Your task to perform on an android device: Search for usb-b on ebay.com, select the first entry, add it to the cart, then select checkout. Image 0: 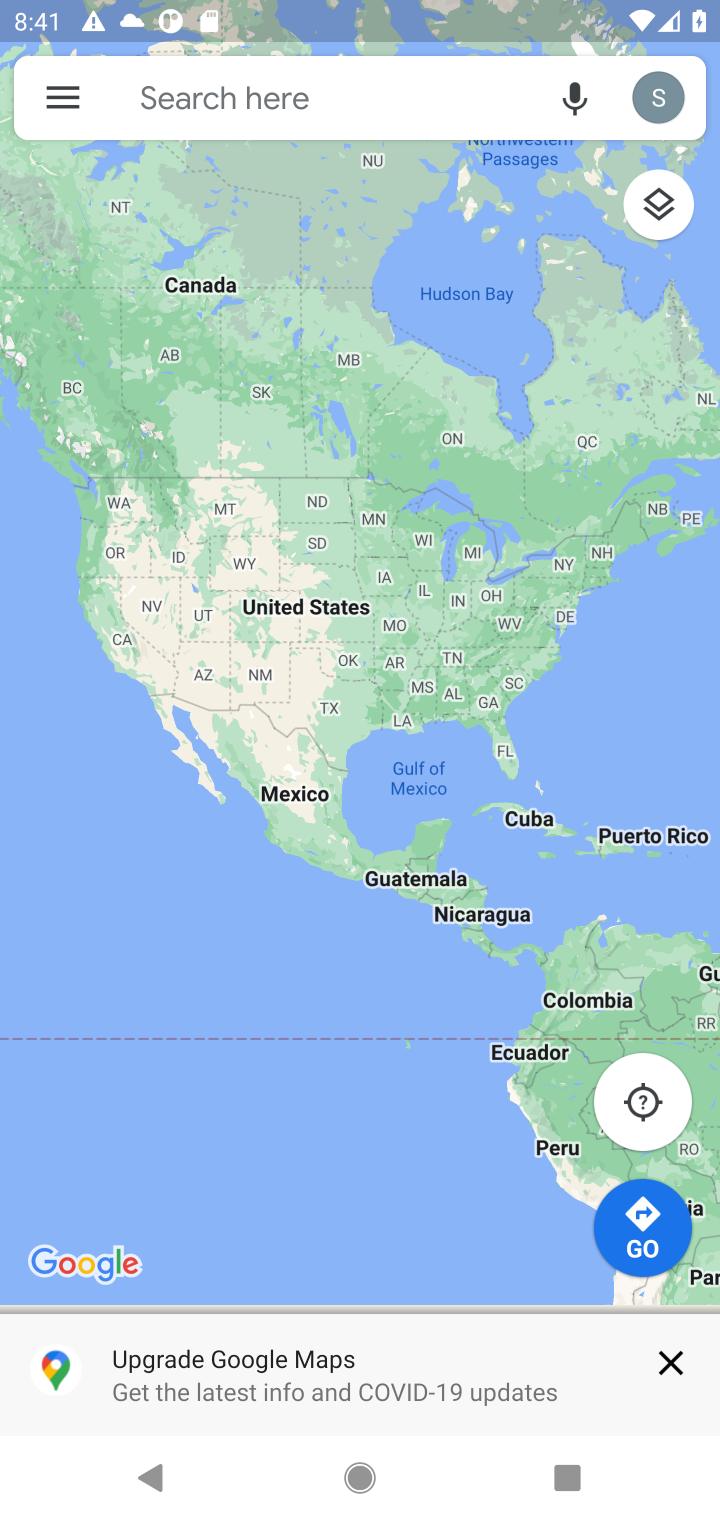
Step 0: press home button
Your task to perform on an android device: Search for usb-b on ebay.com, select the first entry, add it to the cart, then select checkout. Image 1: 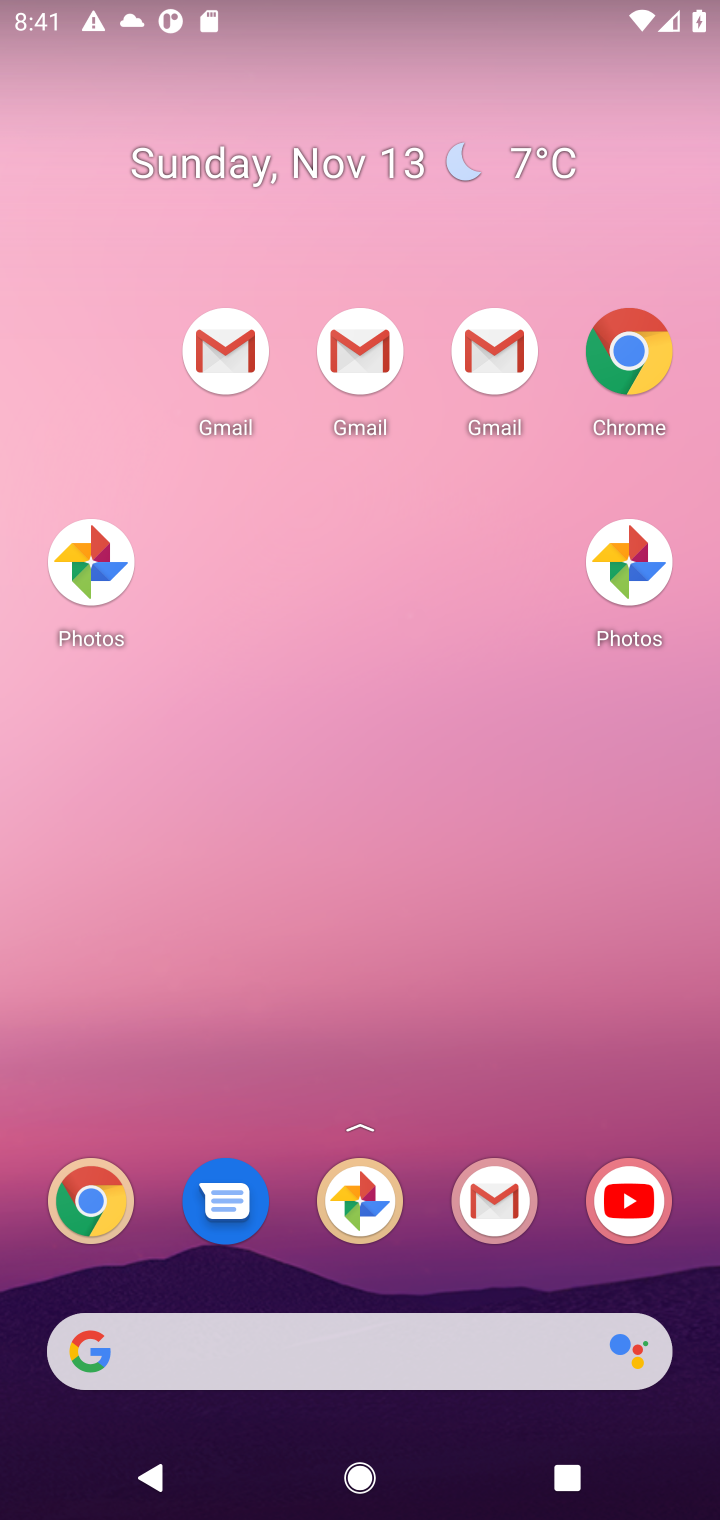
Step 1: drag from (428, 1268) to (346, 236)
Your task to perform on an android device: Search for usb-b on ebay.com, select the first entry, add it to the cart, then select checkout. Image 2: 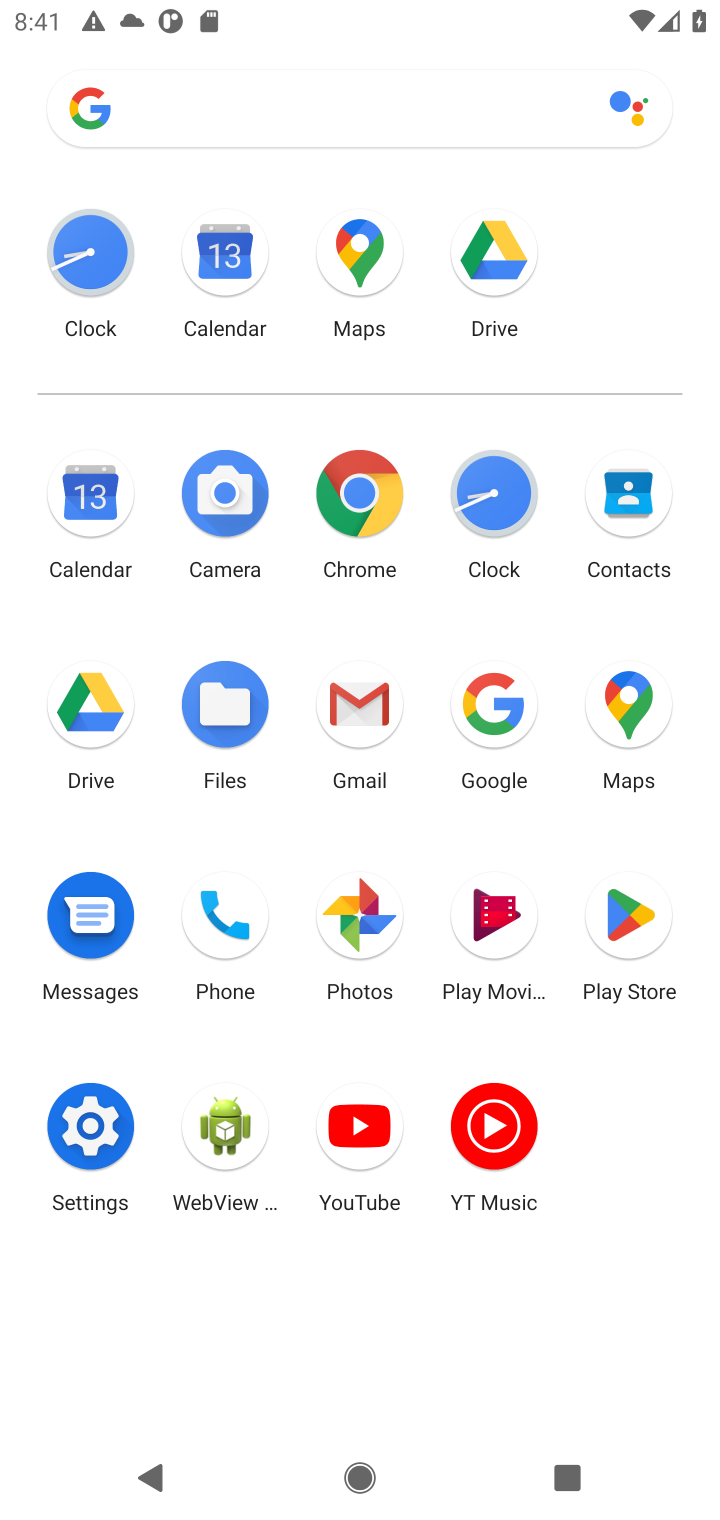
Step 2: click (369, 498)
Your task to perform on an android device: Search for usb-b on ebay.com, select the first entry, add it to the cart, then select checkout. Image 3: 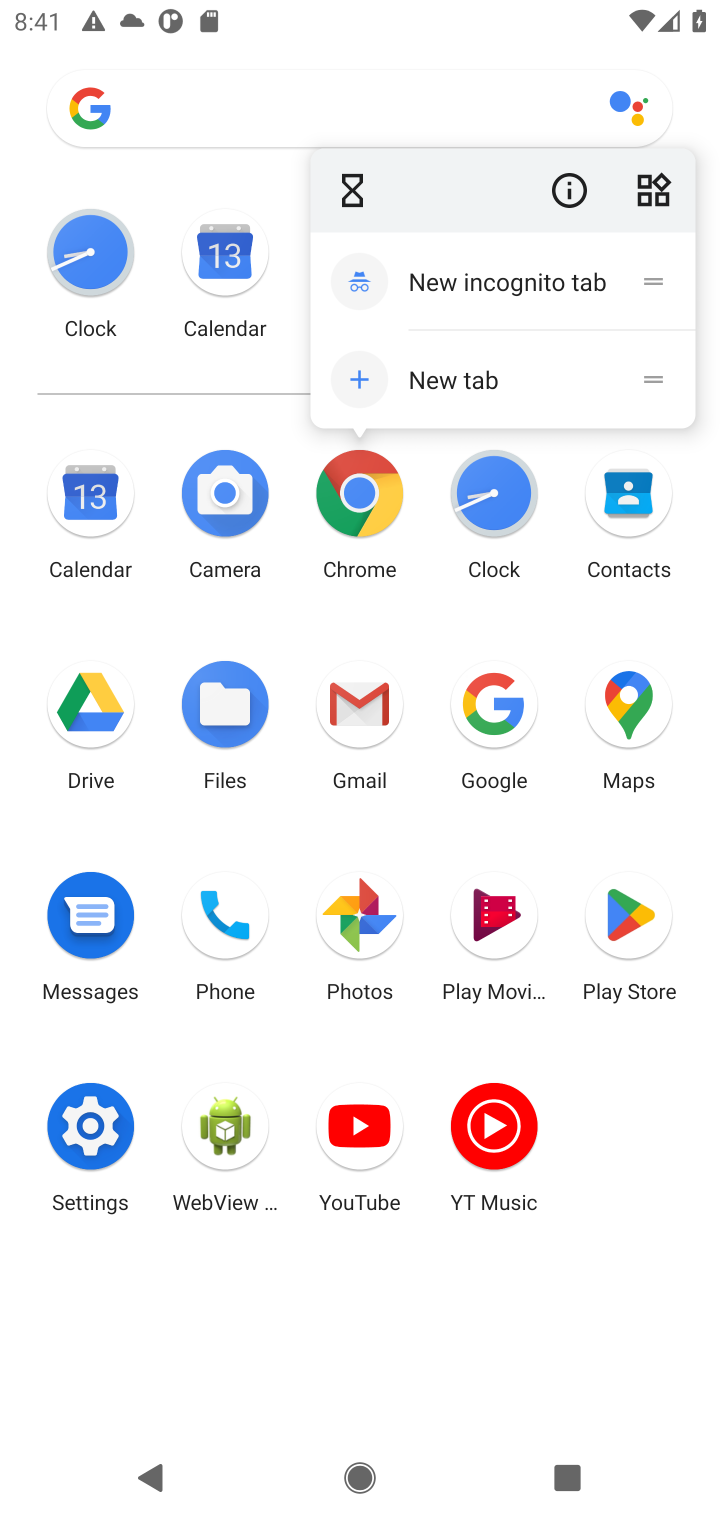
Step 3: click (364, 493)
Your task to perform on an android device: Search for usb-b on ebay.com, select the first entry, add it to the cart, then select checkout. Image 4: 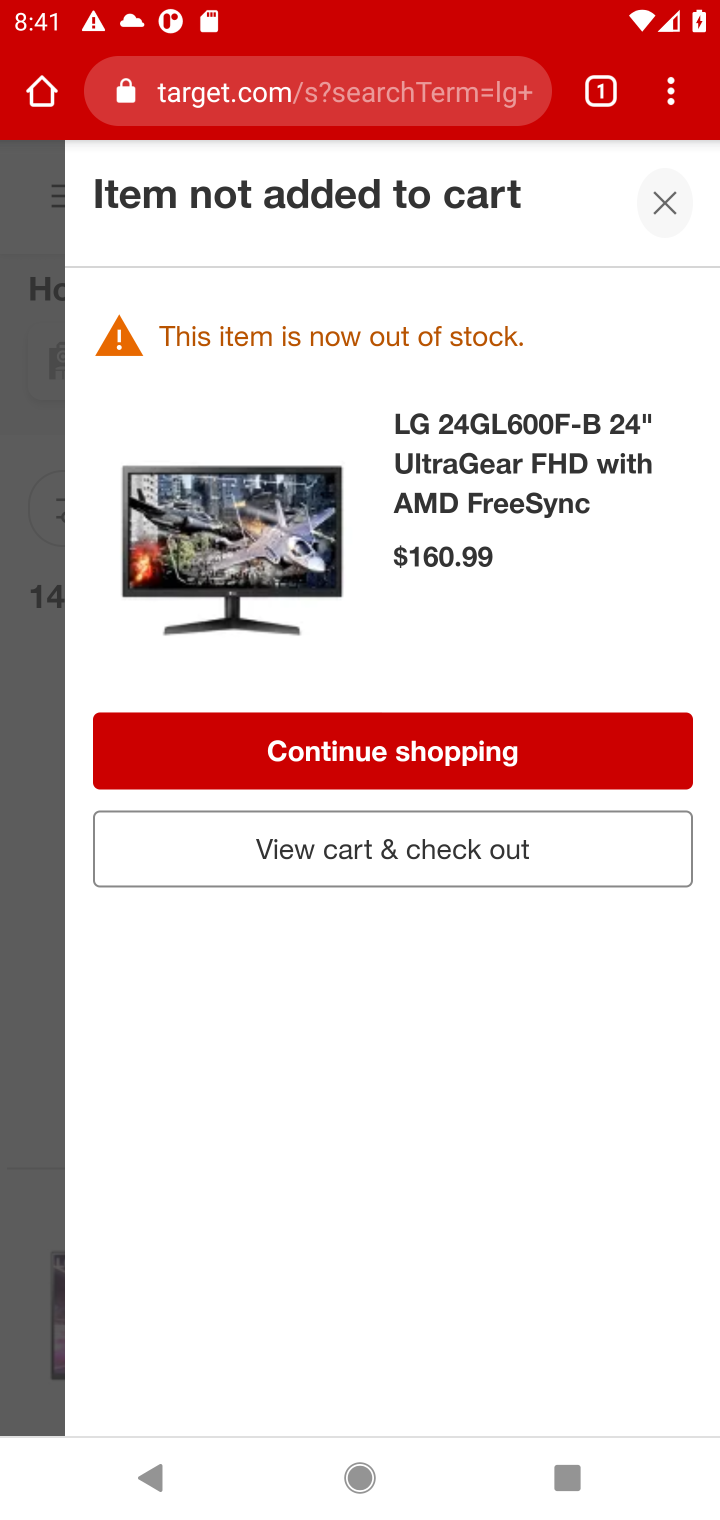
Step 4: click (333, 86)
Your task to perform on an android device: Search for usb-b on ebay.com, select the first entry, add it to the cart, then select checkout. Image 5: 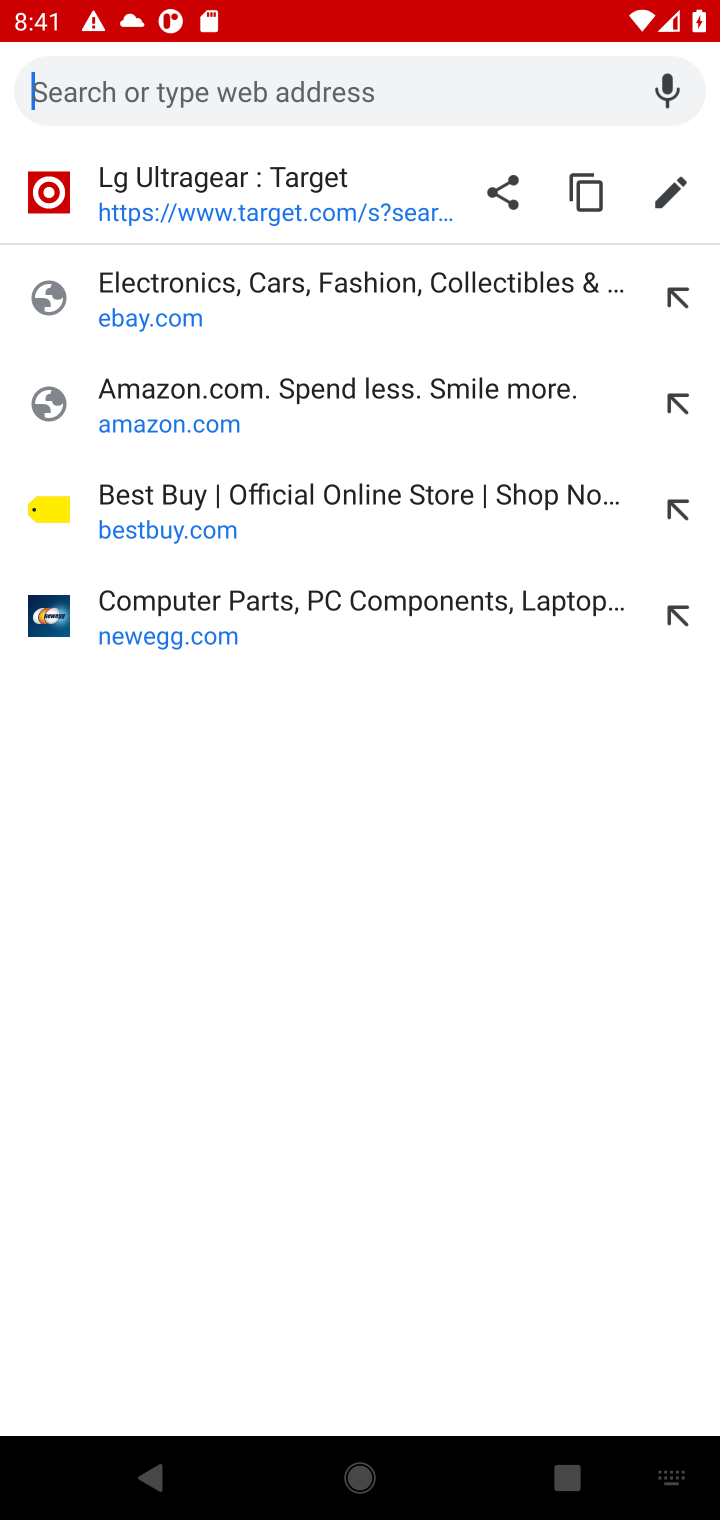
Step 5: type "ebay.com"
Your task to perform on an android device: Search for usb-b on ebay.com, select the first entry, add it to the cart, then select checkout. Image 6: 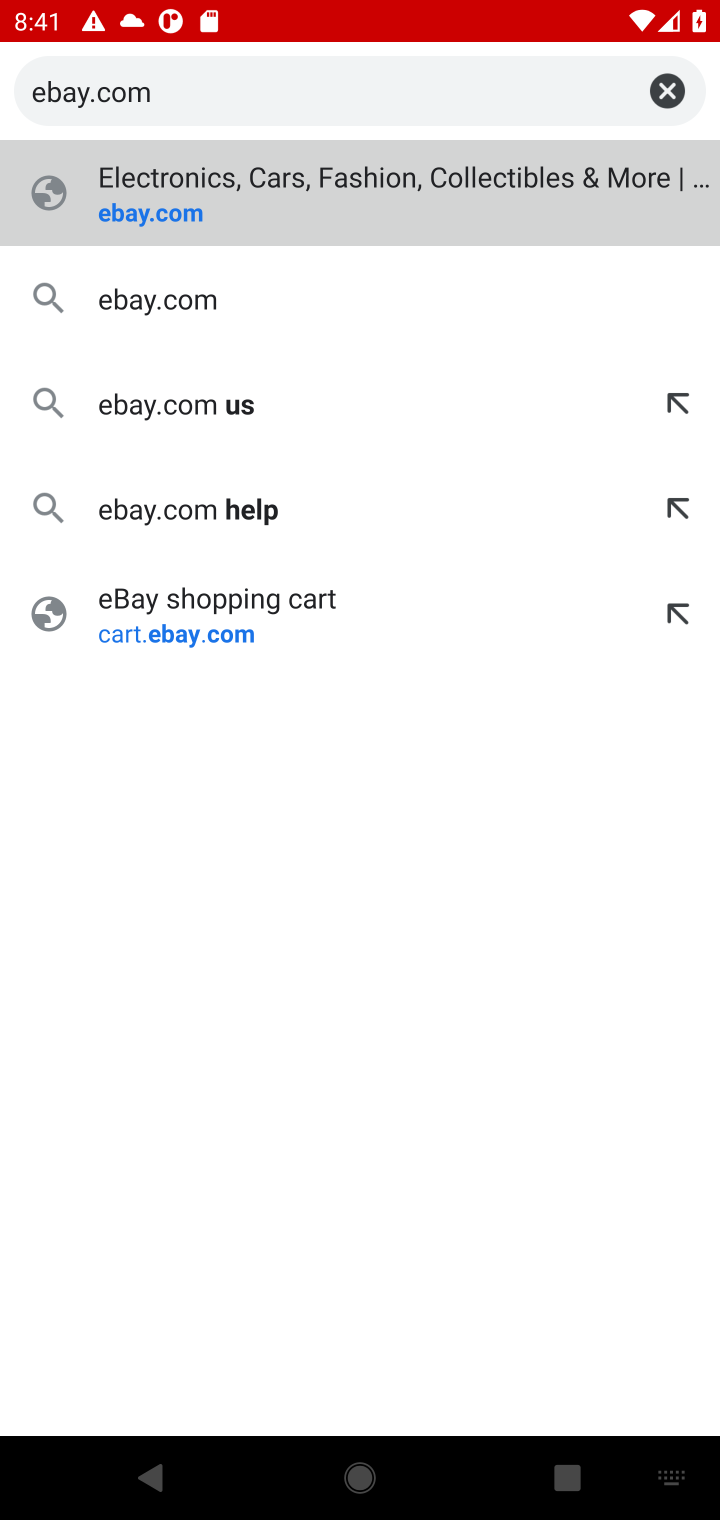
Step 6: press enter
Your task to perform on an android device: Search for usb-b on ebay.com, select the first entry, add it to the cart, then select checkout. Image 7: 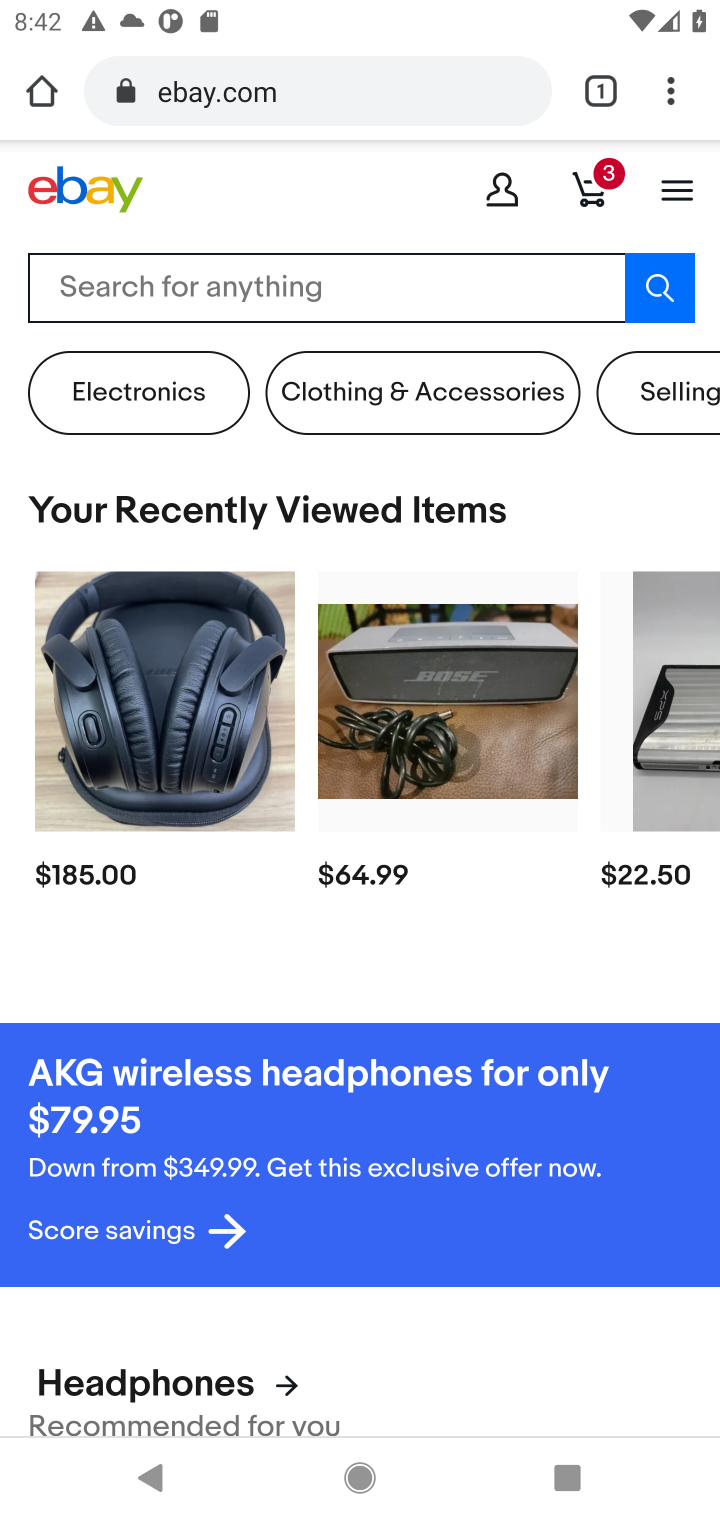
Step 7: click (475, 284)
Your task to perform on an android device: Search for usb-b on ebay.com, select the first entry, add it to the cart, then select checkout. Image 8: 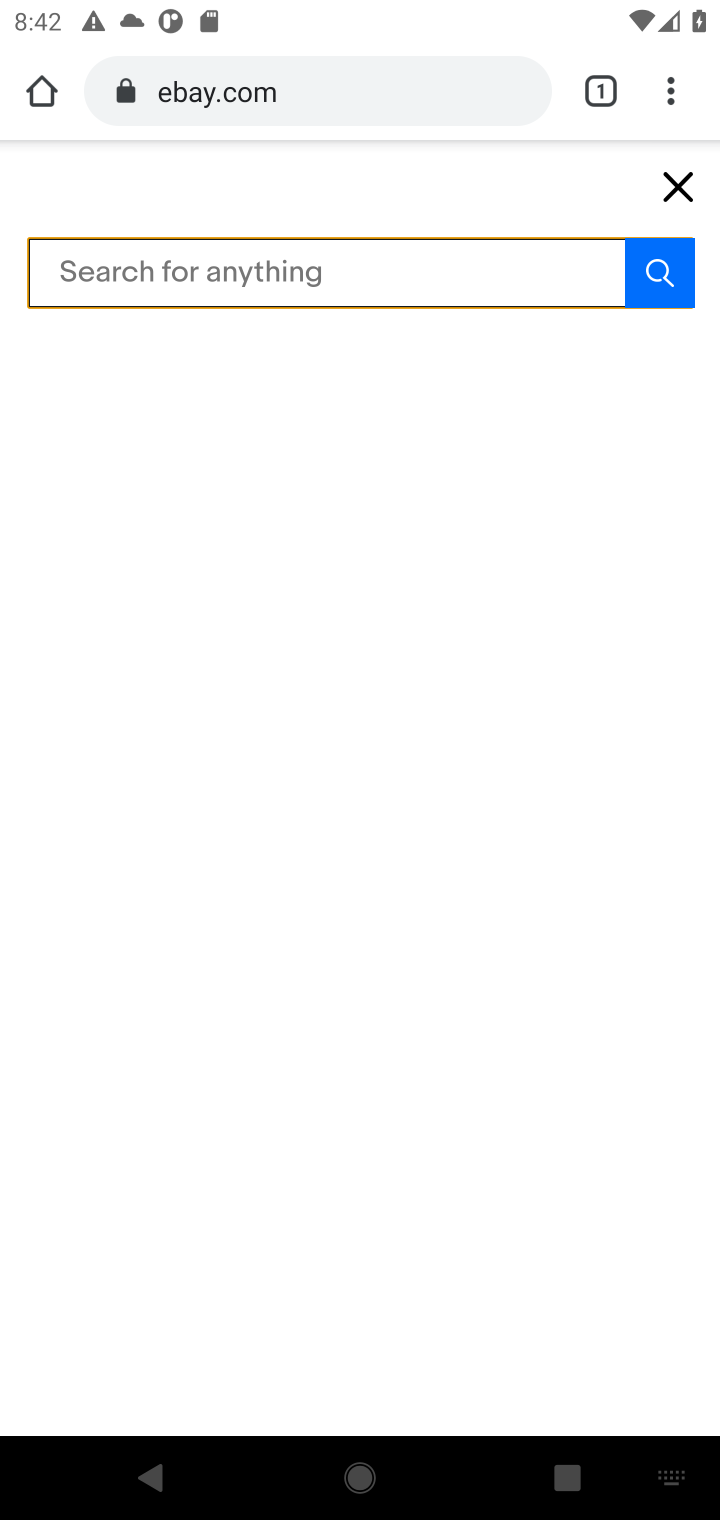
Step 8: type "usb-b"
Your task to perform on an android device: Search for usb-b on ebay.com, select the first entry, add it to the cart, then select checkout. Image 9: 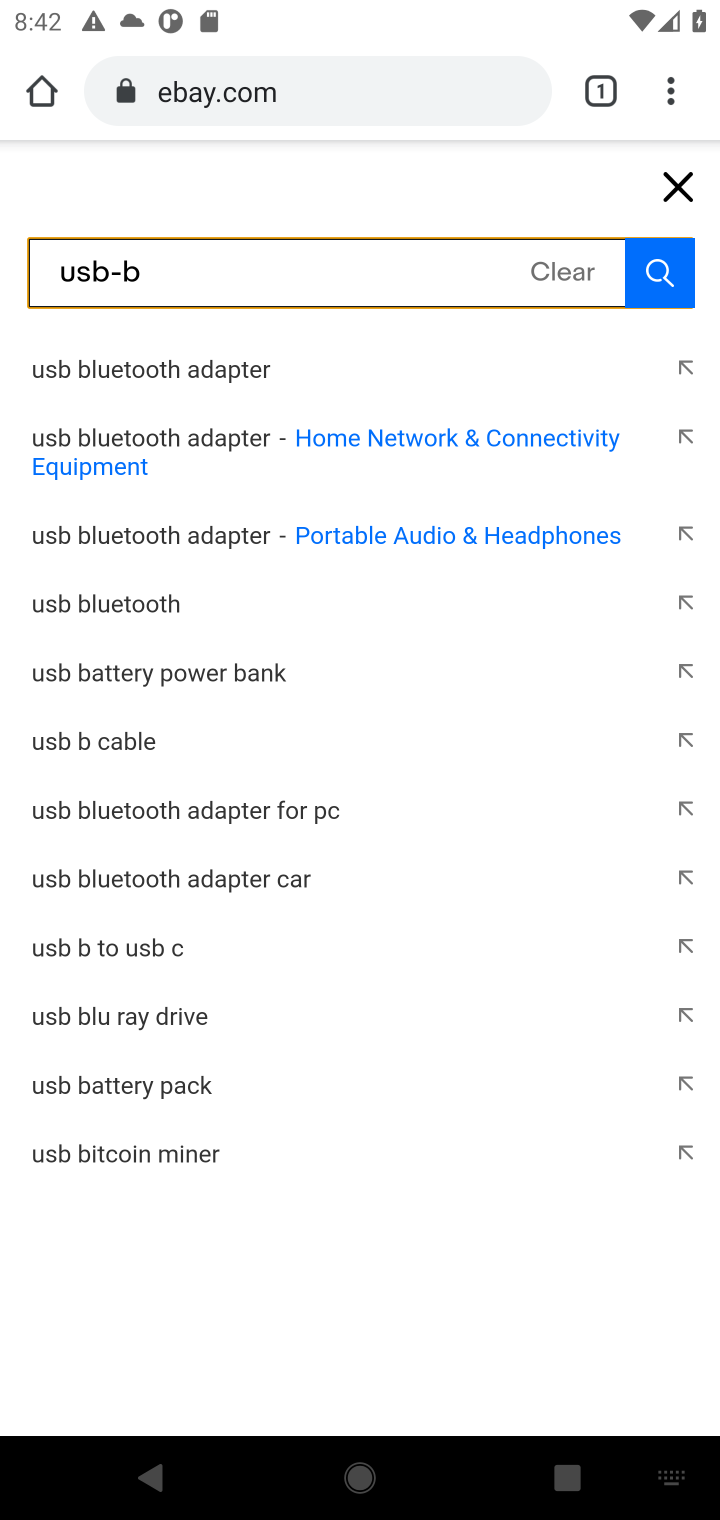
Step 9: press enter
Your task to perform on an android device: Search for usb-b on ebay.com, select the first entry, add it to the cart, then select checkout. Image 10: 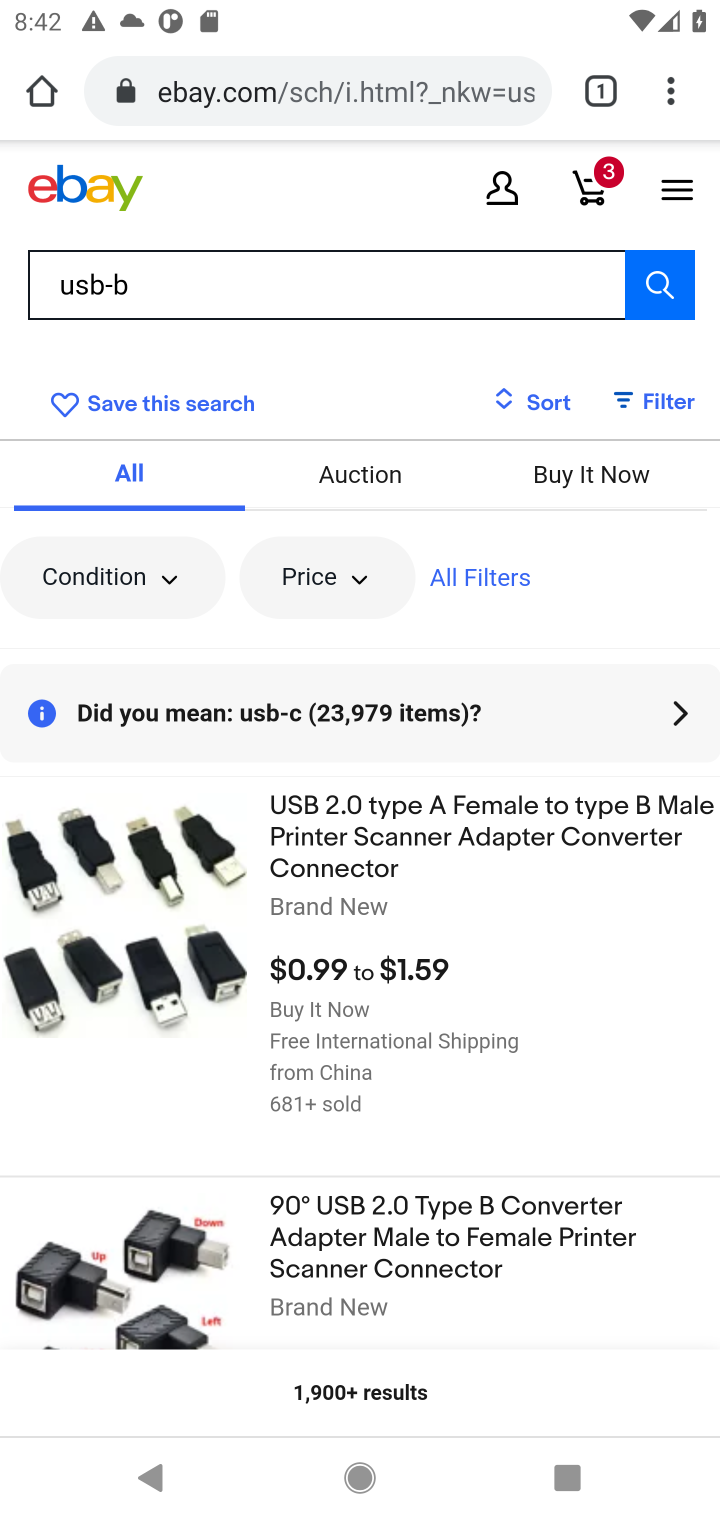
Step 10: drag from (487, 1070) to (477, 822)
Your task to perform on an android device: Search for usb-b on ebay.com, select the first entry, add it to the cart, then select checkout. Image 11: 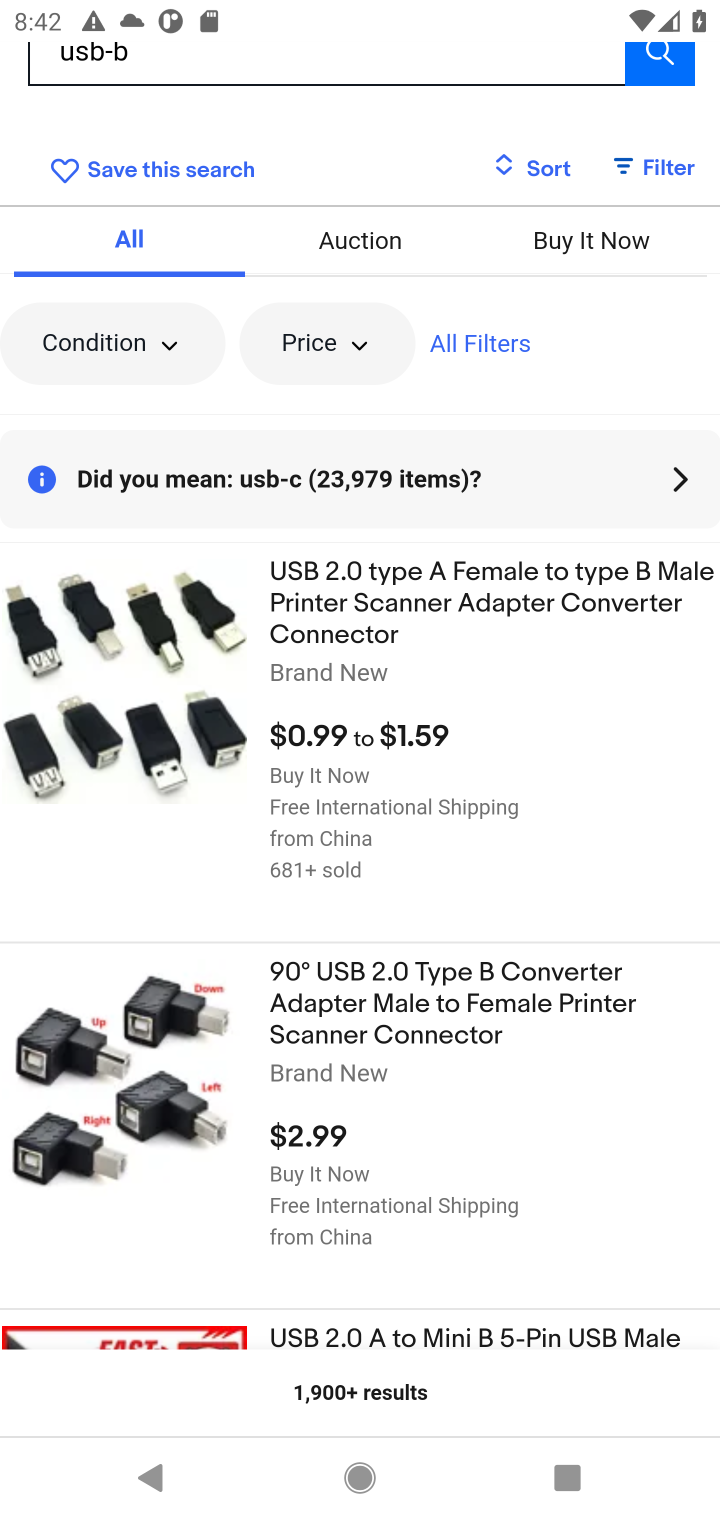
Step 11: click (373, 587)
Your task to perform on an android device: Search for usb-b on ebay.com, select the first entry, add it to the cart, then select checkout. Image 12: 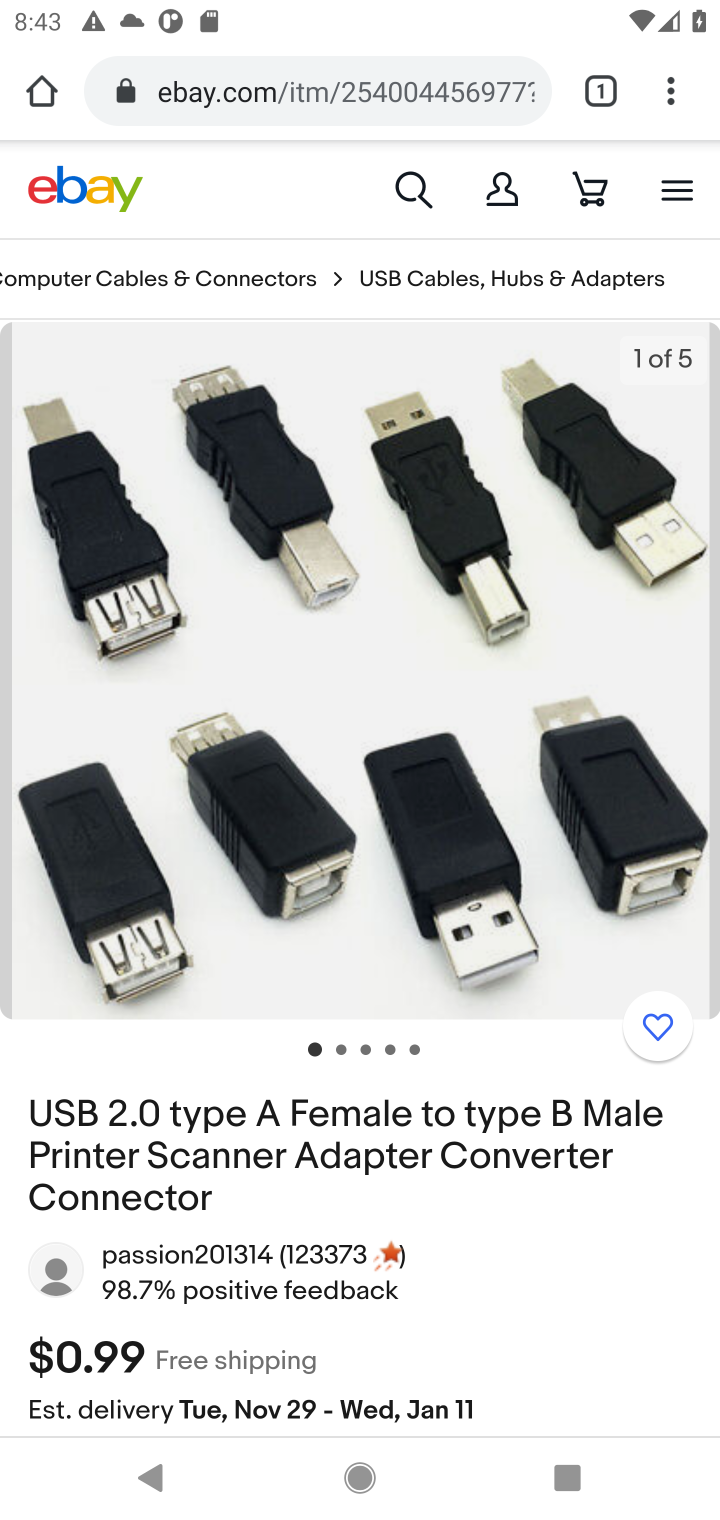
Step 12: drag from (399, 1011) to (304, 206)
Your task to perform on an android device: Search for usb-b on ebay.com, select the first entry, add it to the cart, then select checkout. Image 13: 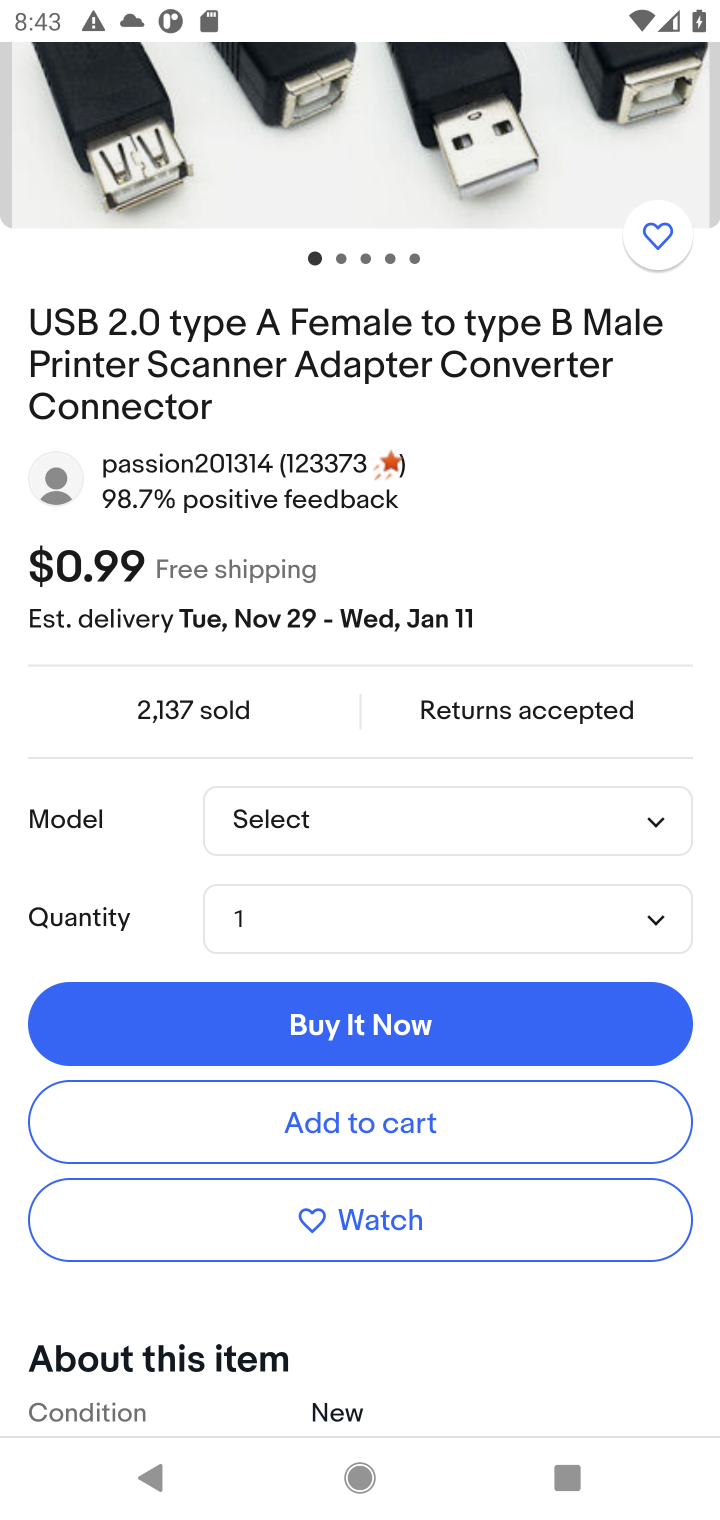
Step 13: click (486, 1101)
Your task to perform on an android device: Search for usb-b on ebay.com, select the first entry, add it to the cart, then select checkout. Image 14: 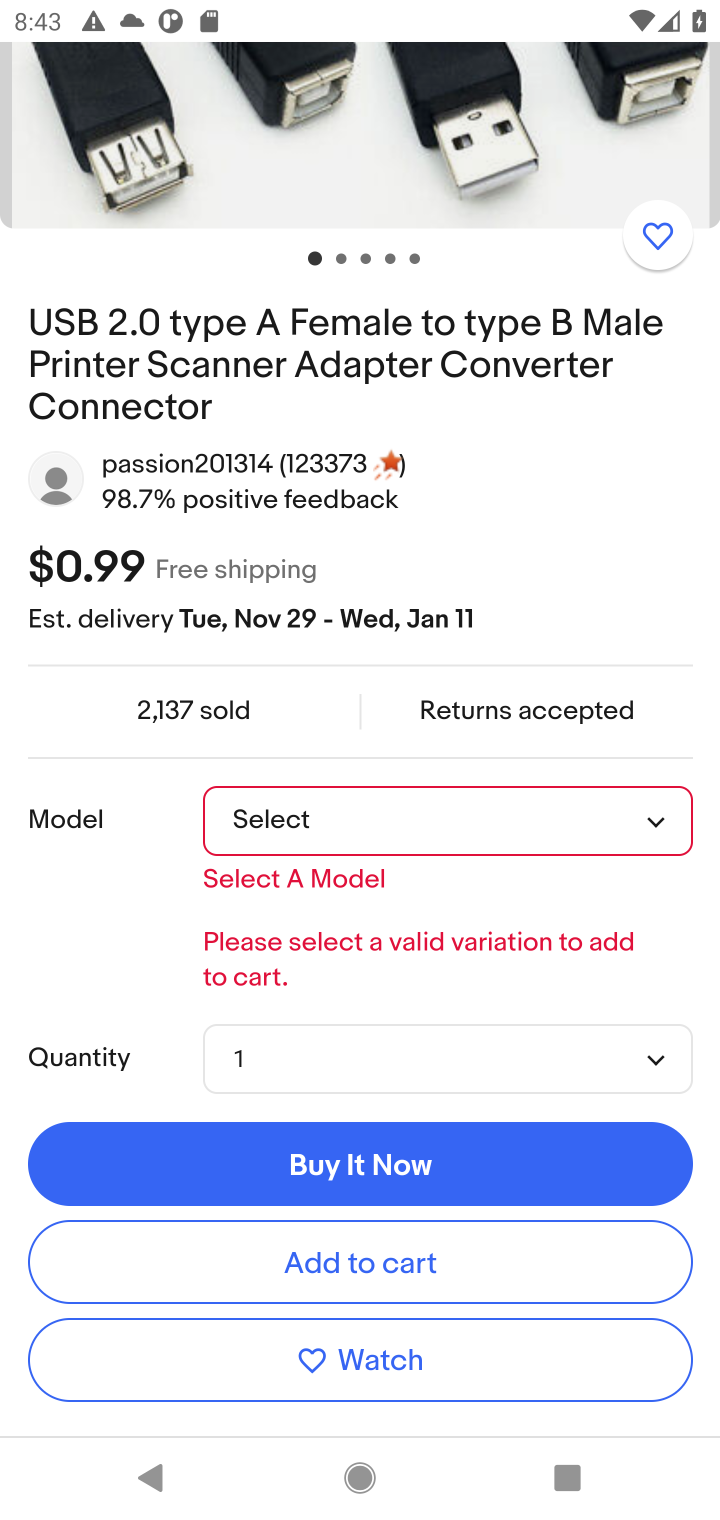
Step 14: click (663, 812)
Your task to perform on an android device: Search for usb-b on ebay.com, select the first entry, add it to the cart, then select checkout. Image 15: 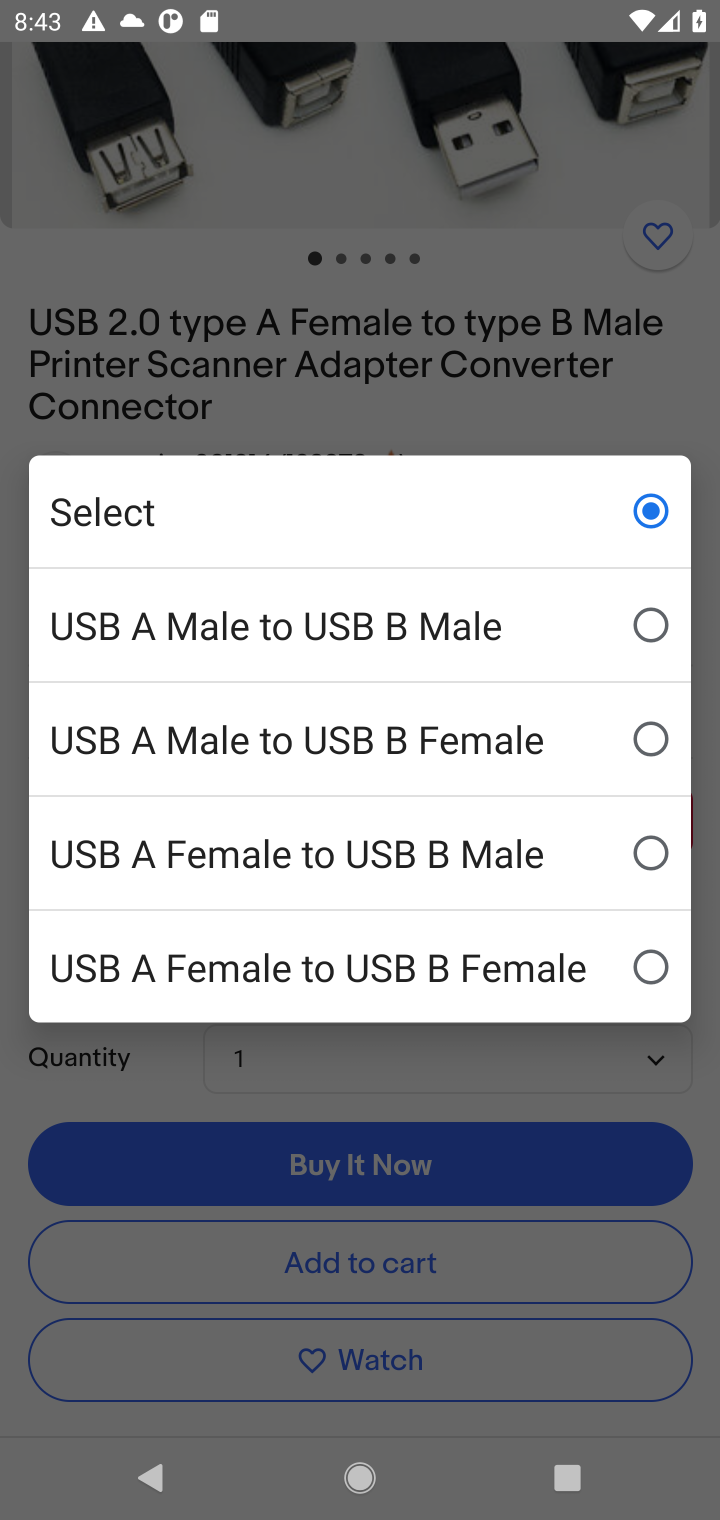
Step 15: click (350, 632)
Your task to perform on an android device: Search for usb-b on ebay.com, select the first entry, add it to the cart, then select checkout. Image 16: 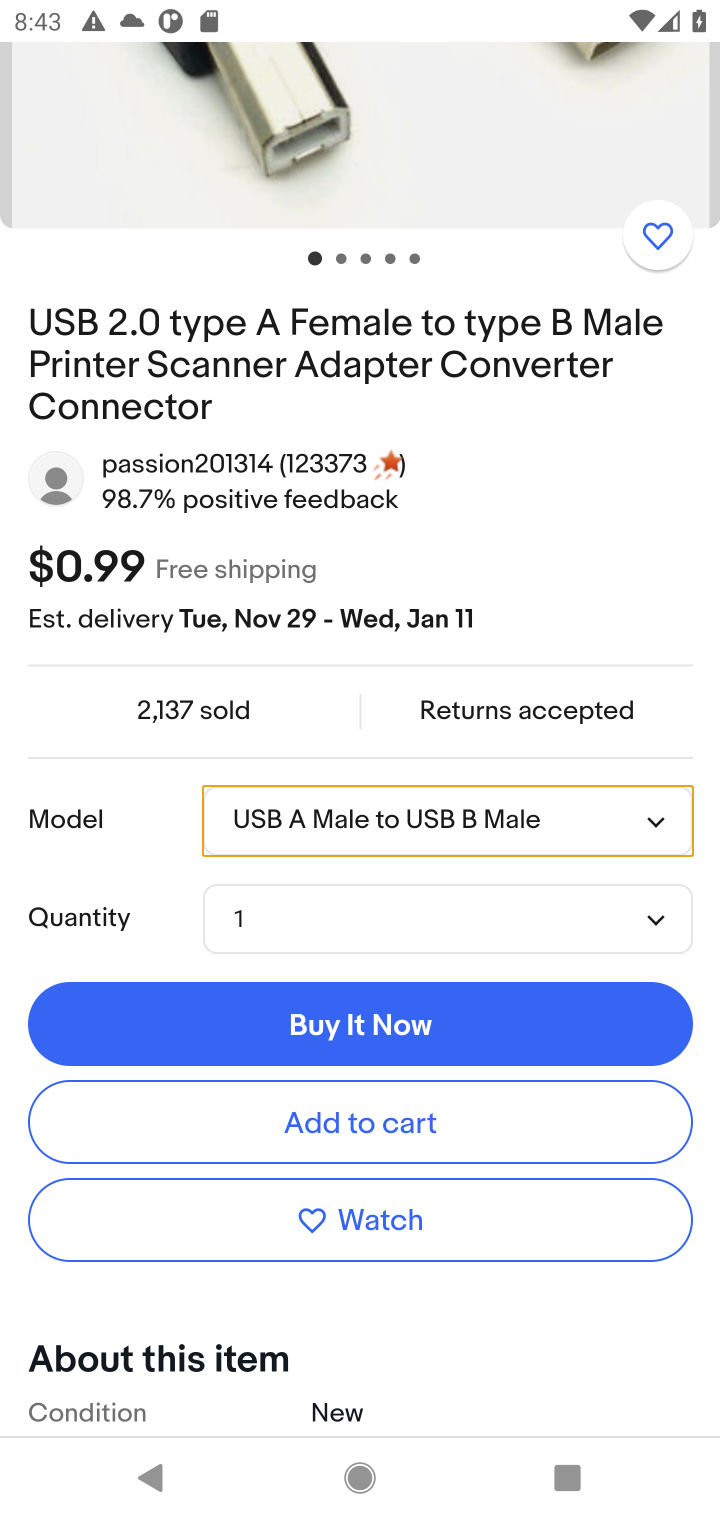
Step 16: click (444, 1126)
Your task to perform on an android device: Search for usb-b on ebay.com, select the first entry, add it to the cart, then select checkout. Image 17: 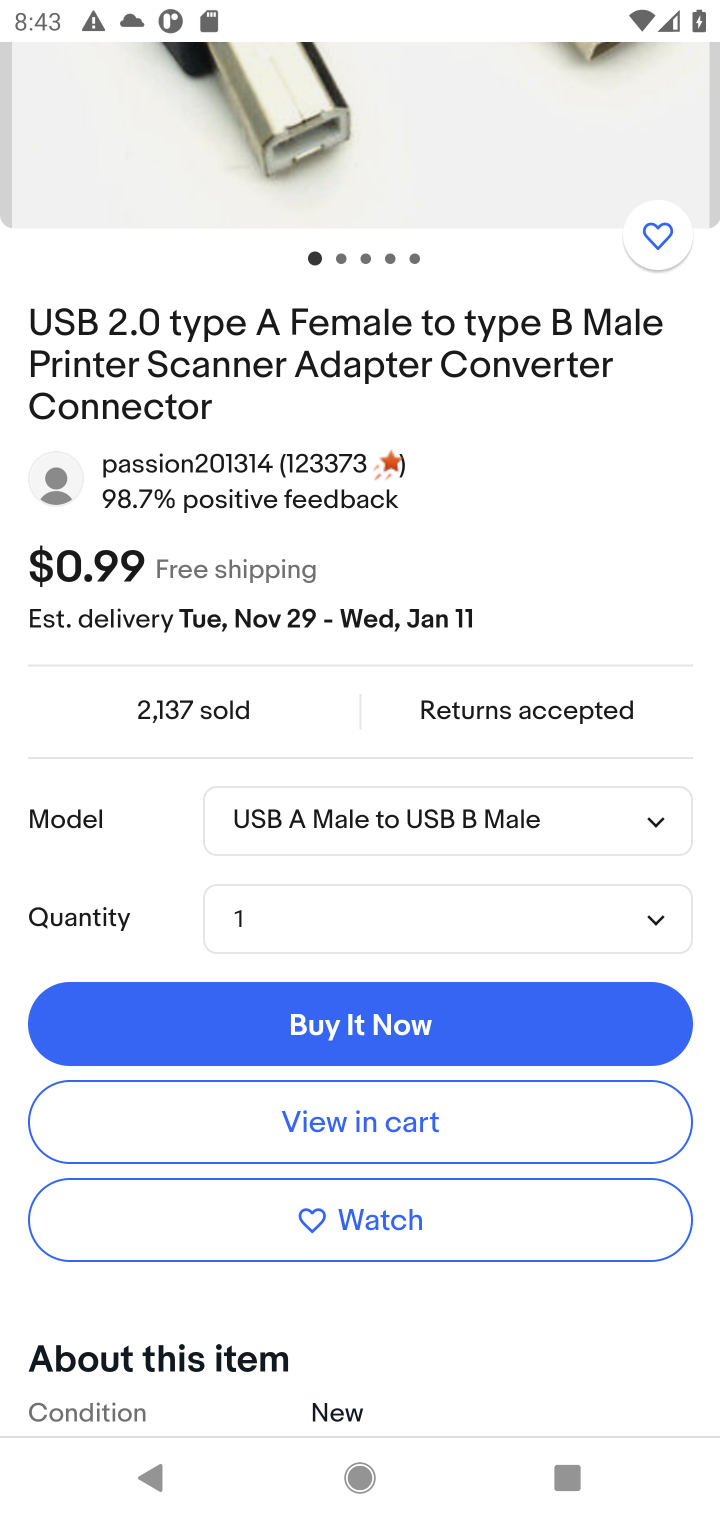
Step 17: click (444, 1126)
Your task to perform on an android device: Search for usb-b on ebay.com, select the first entry, add it to the cart, then select checkout. Image 18: 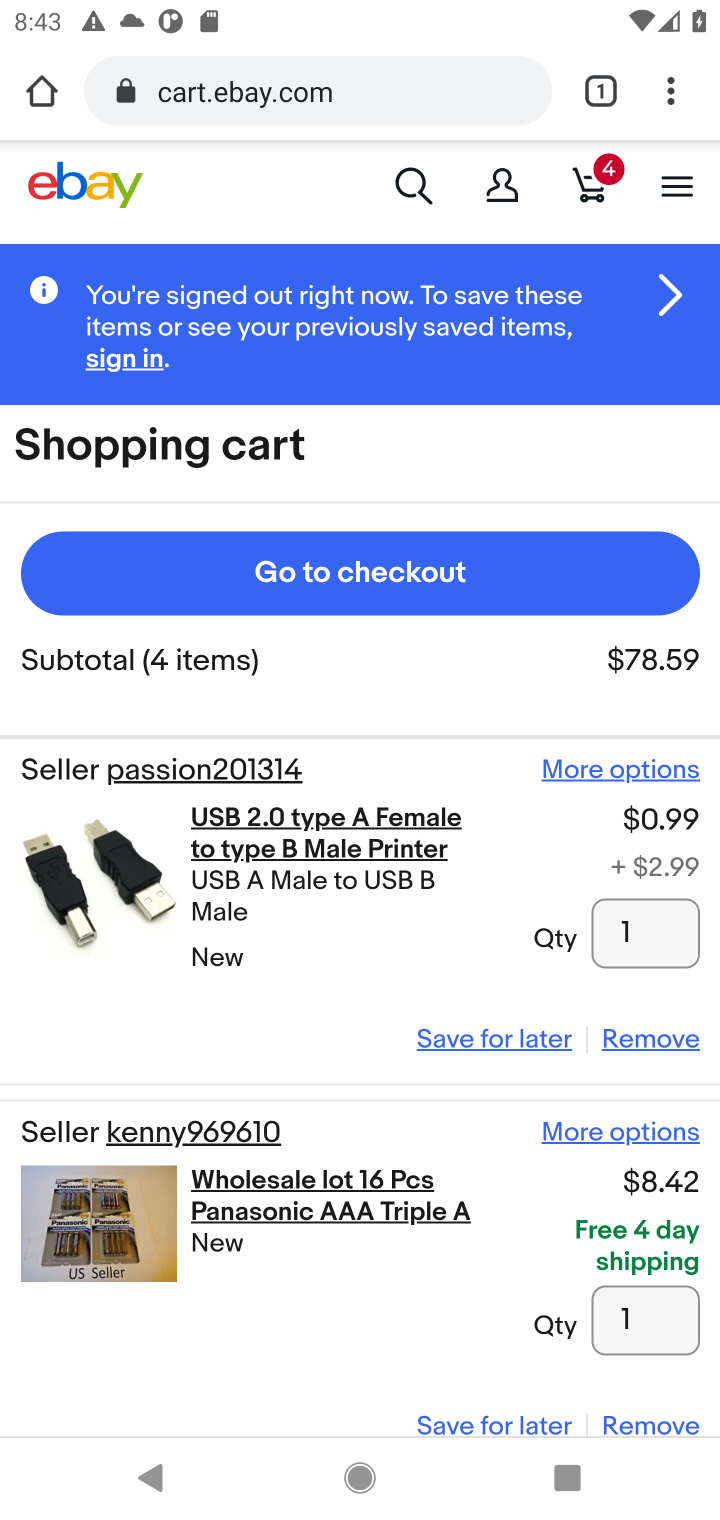
Step 18: click (452, 577)
Your task to perform on an android device: Search for usb-b on ebay.com, select the first entry, add it to the cart, then select checkout. Image 19: 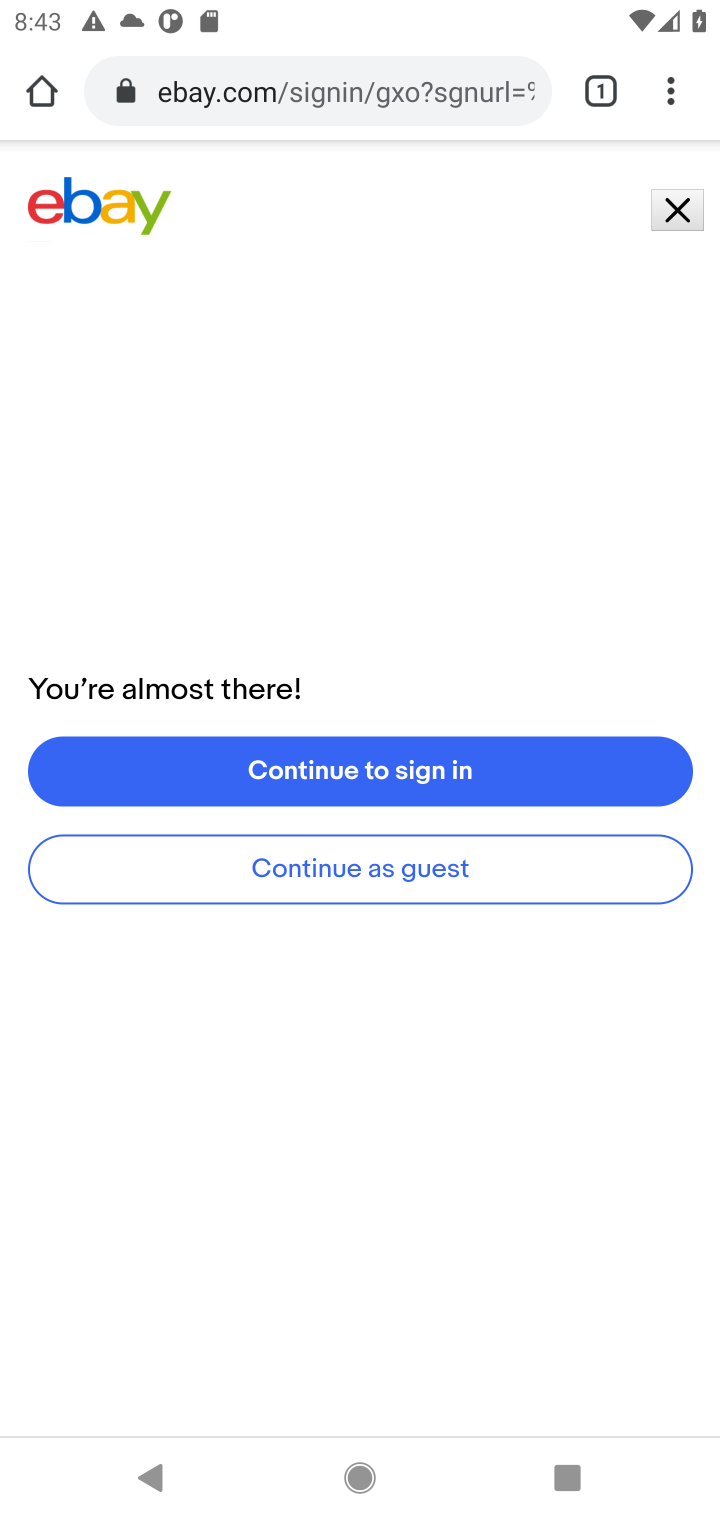
Step 19: task complete